Your task to perform on an android device: Open the calendar app, open the side menu, and click the "Day" option Image 0: 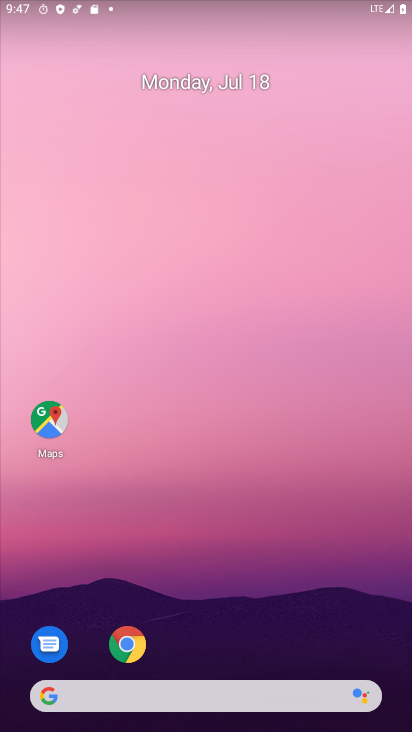
Step 0: drag from (222, 664) to (191, 114)
Your task to perform on an android device: Open the calendar app, open the side menu, and click the "Day" option Image 1: 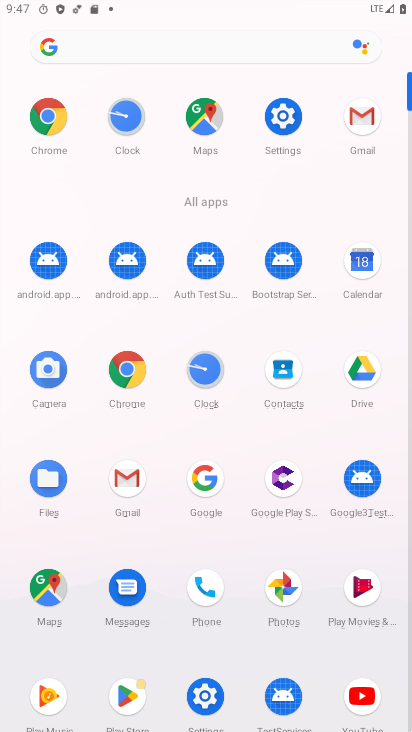
Step 1: click (362, 261)
Your task to perform on an android device: Open the calendar app, open the side menu, and click the "Day" option Image 2: 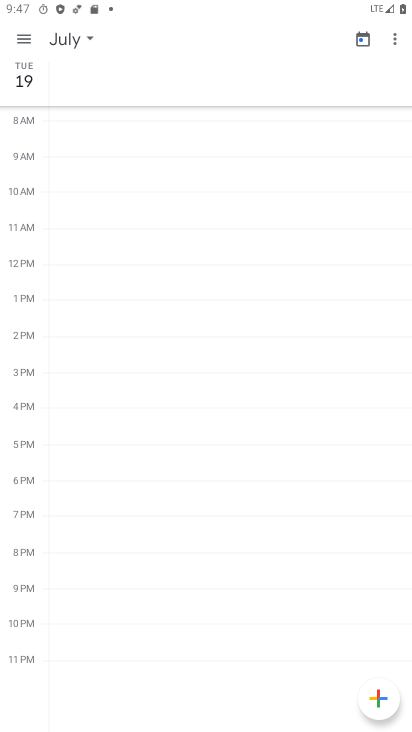
Step 2: click (22, 43)
Your task to perform on an android device: Open the calendar app, open the side menu, and click the "Day" option Image 3: 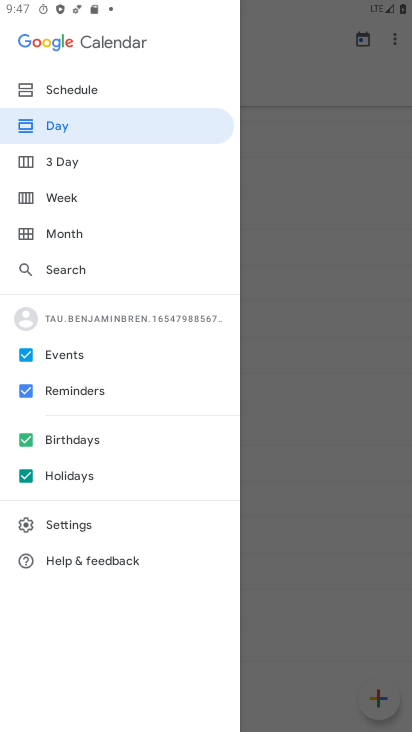
Step 3: click (58, 123)
Your task to perform on an android device: Open the calendar app, open the side menu, and click the "Day" option Image 4: 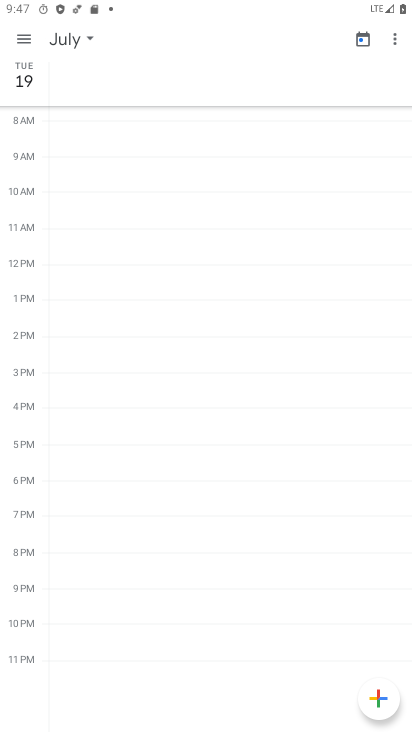
Step 4: task complete